Your task to perform on an android device: See recent photos Image 0: 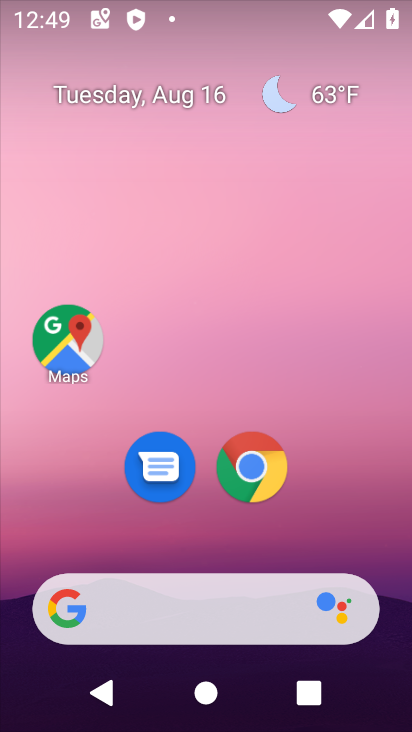
Step 0: press home button
Your task to perform on an android device: See recent photos Image 1: 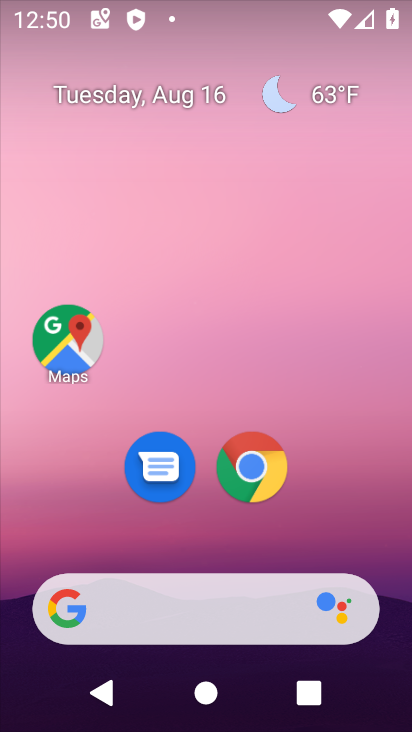
Step 1: drag from (357, 548) to (409, 147)
Your task to perform on an android device: See recent photos Image 2: 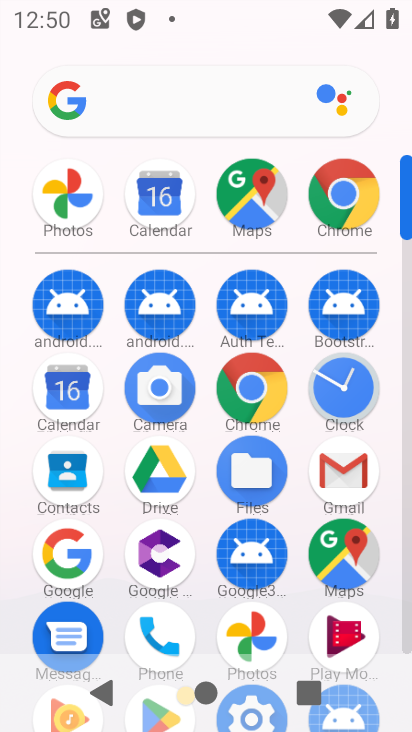
Step 2: click (68, 191)
Your task to perform on an android device: See recent photos Image 3: 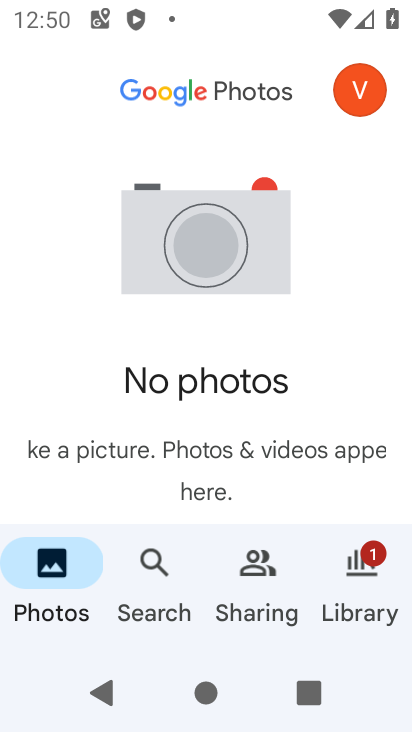
Step 3: task complete